Your task to perform on an android device: Open Maps and search for coffee Image 0: 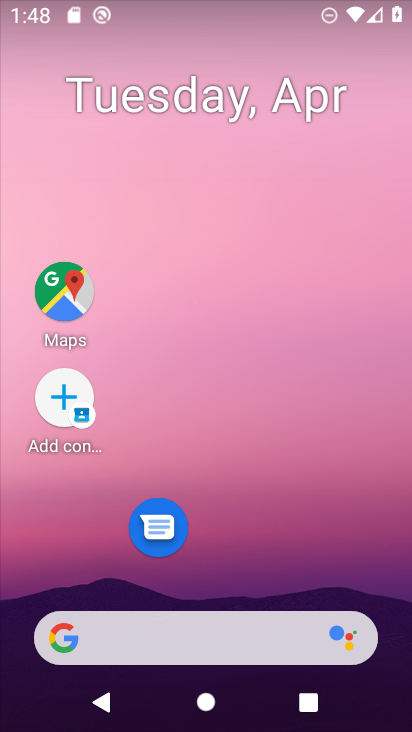
Step 0: click (62, 296)
Your task to perform on an android device: Open Maps and search for coffee Image 1: 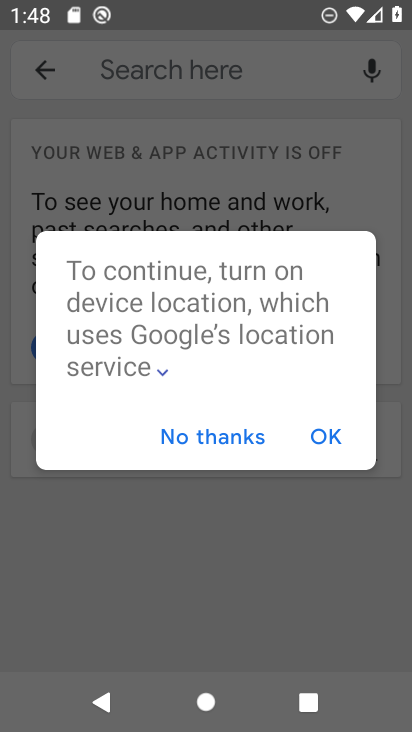
Step 1: click (197, 437)
Your task to perform on an android device: Open Maps and search for coffee Image 2: 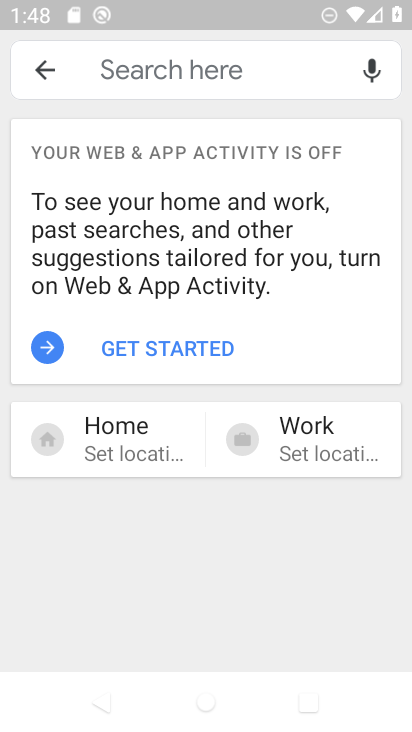
Step 2: click (171, 81)
Your task to perform on an android device: Open Maps and search for coffee Image 3: 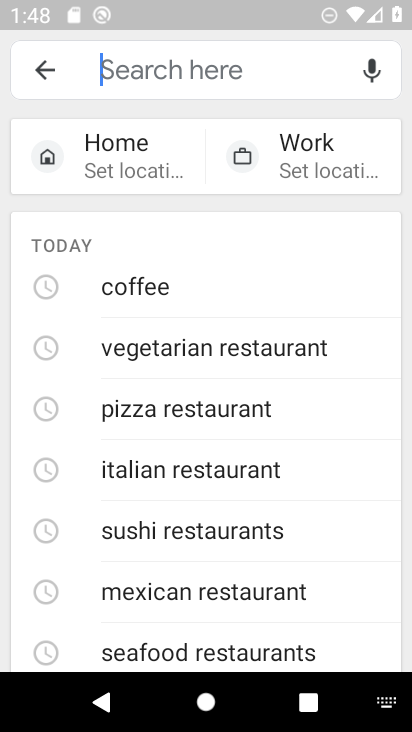
Step 3: type "coffee"
Your task to perform on an android device: Open Maps and search for coffee Image 4: 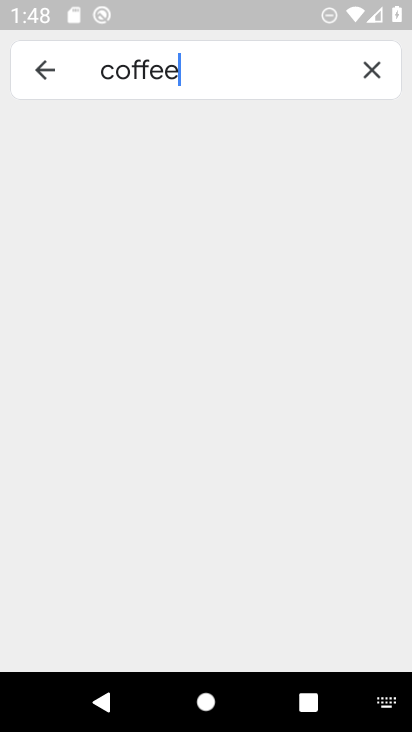
Step 4: type ""
Your task to perform on an android device: Open Maps and search for coffee Image 5: 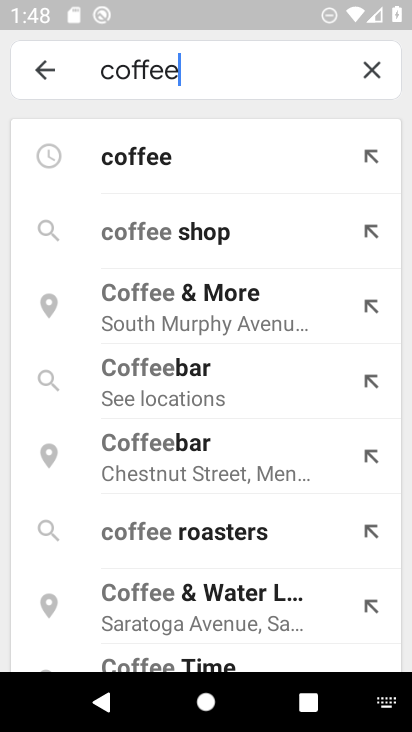
Step 5: click (162, 161)
Your task to perform on an android device: Open Maps and search for coffee Image 6: 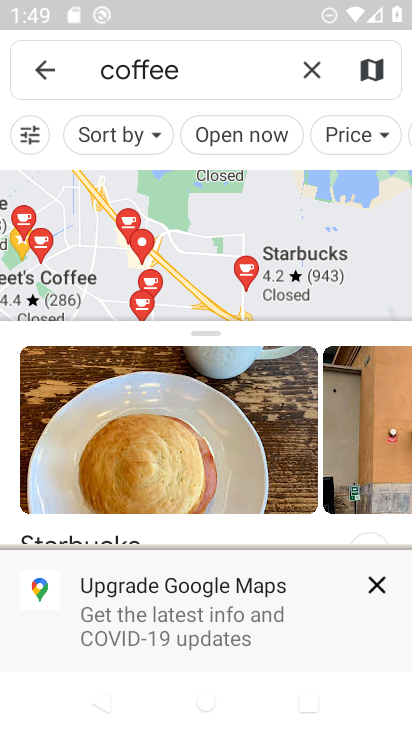
Step 6: click (376, 591)
Your task to perform on an android device: Open Maps and search for coffee Image 7: 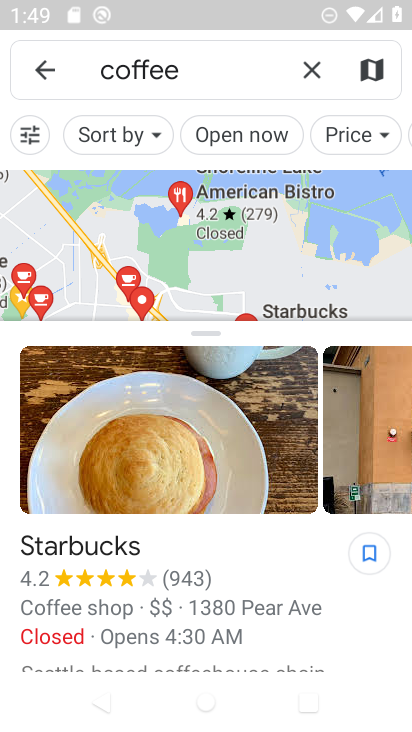
Step 7: task complete